Your task to perform on an android device: empty trash in google photos Image 0: 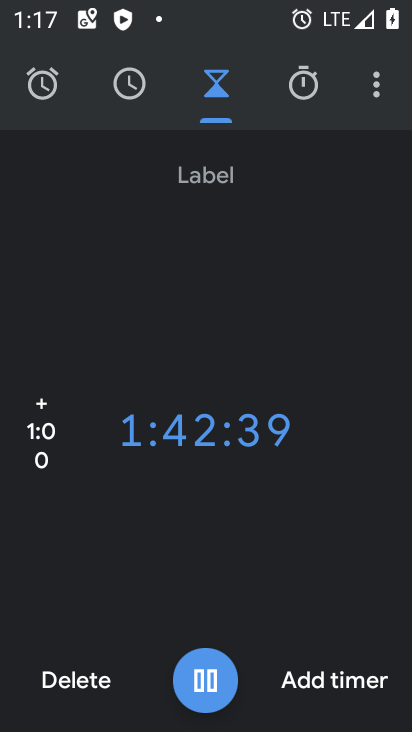
Step 0: press home button
Your task to perform on an android device: empty trash in google photos Image 1: 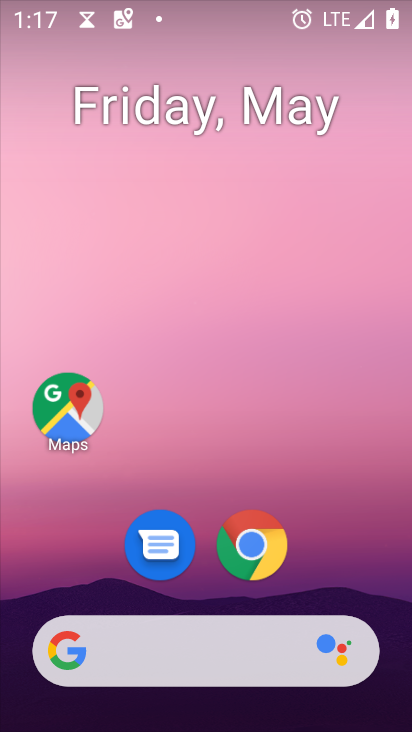
Step 1: drag from (312, 574) to (276, 149)
Your task to perform on an android device: empty trash in google photos Image 2: 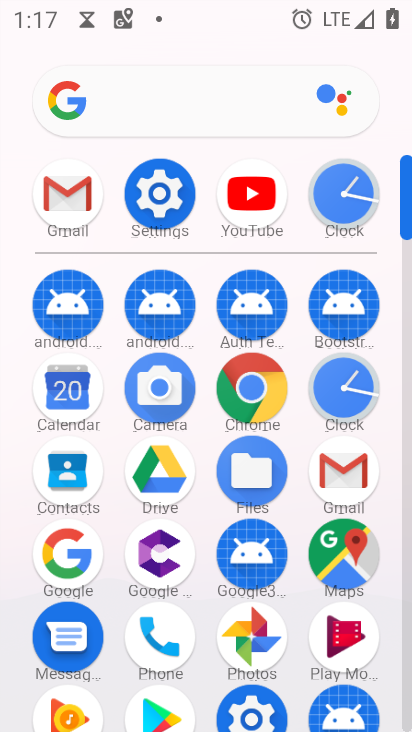
Step 2: click (241, 633)
Your task to perform on an android device: empty trash in google photos Image 3: 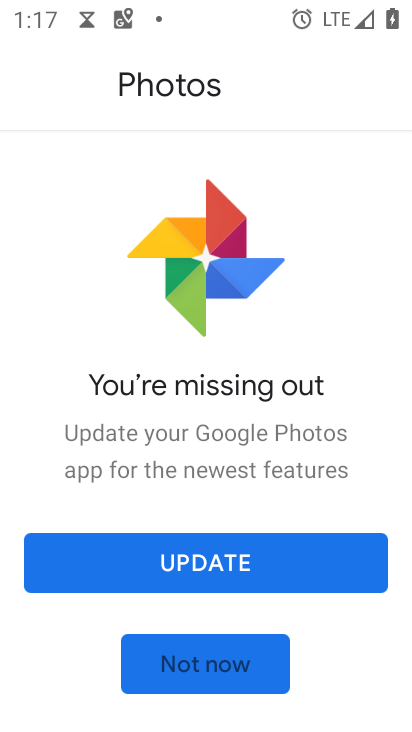
Step 3: click (243, 549)
Your task to perform on an android device: empty trash in google photos Image 4: 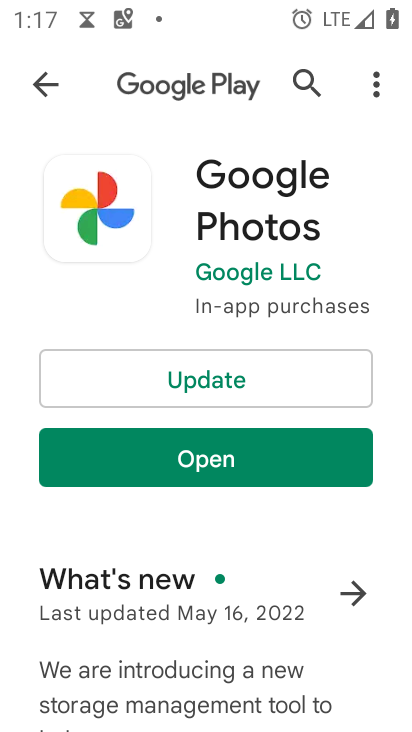
Step 4: click (260, 369)
Your task to perform on an android device: empty trash in google photos Image 5: 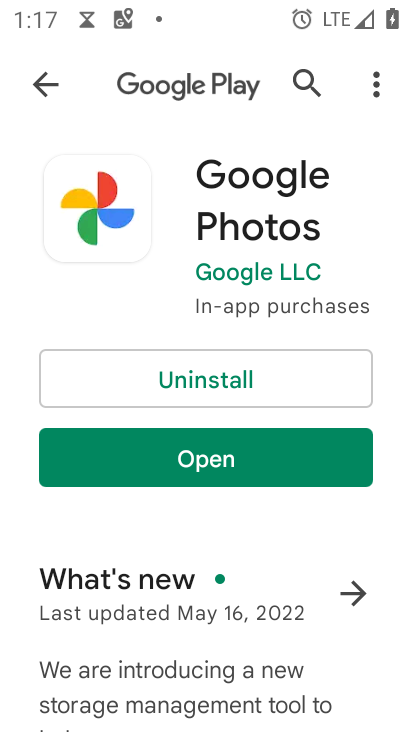
Step 5: click (243, 465)
Your task to perform on an android device: empty trash in google photos Image 6: 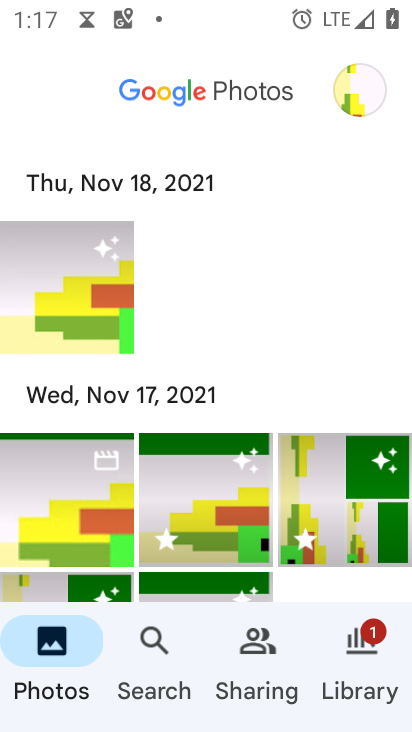
Step 6: click (353, 657)
Your task to perform on an android device: empty trash in google photos Image 7: 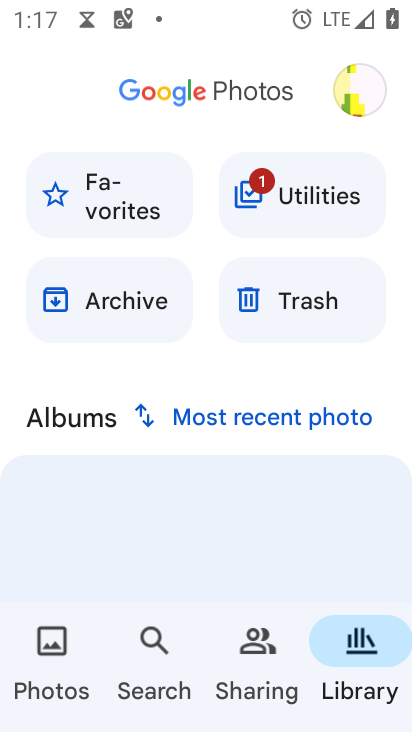
Step 7: click (324, 314)
Your task to perform on an android device: empty trash in google photos Image 8: 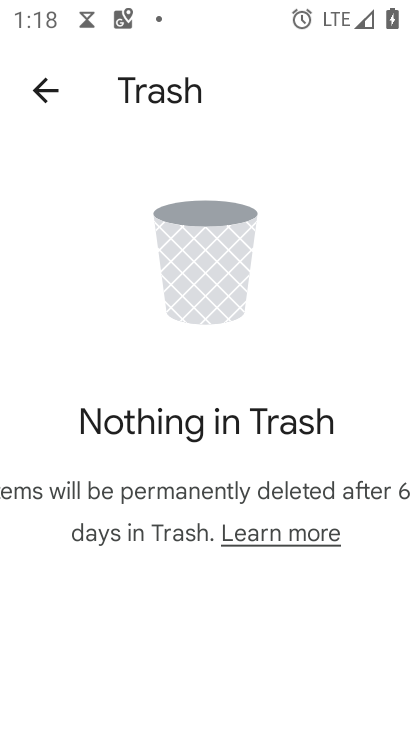
Step 8: task complete